Your task to perform on an android device: toggle notification dots Image 0: 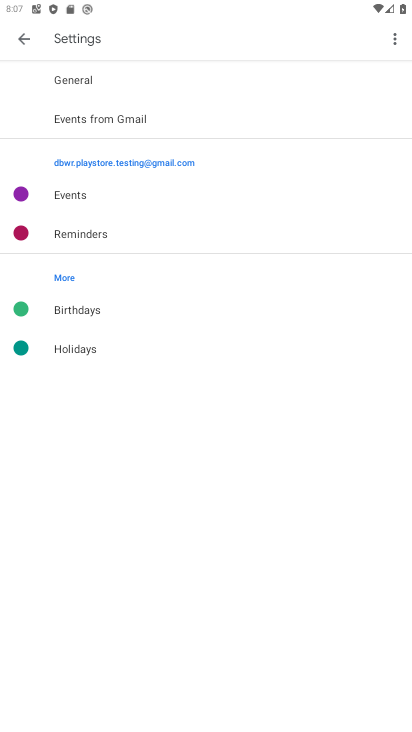
Step 0: press home button
Your task to perform on an android device: toggle notification dots Image 1: 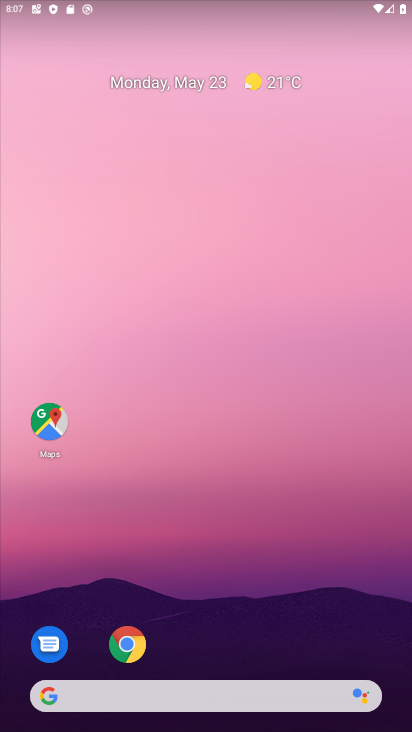
Step 1: drag from (203, 719) to (256, 0)
Your task to perform on an android device: toggle notification dots Image 2: 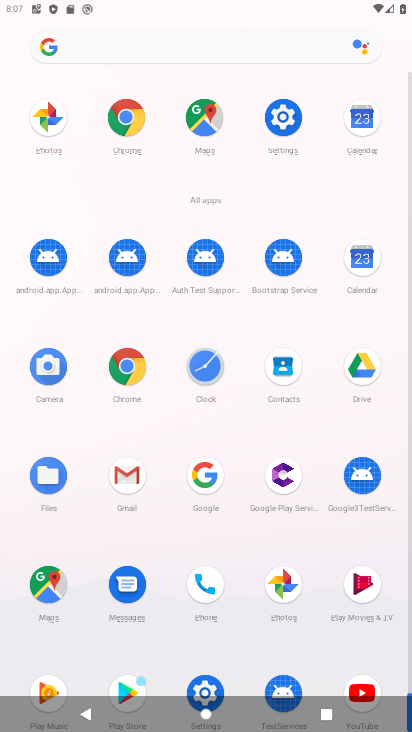
Step 2: click (290, 125)
Your task to perform on an android device: toggle notification dots Image 3: 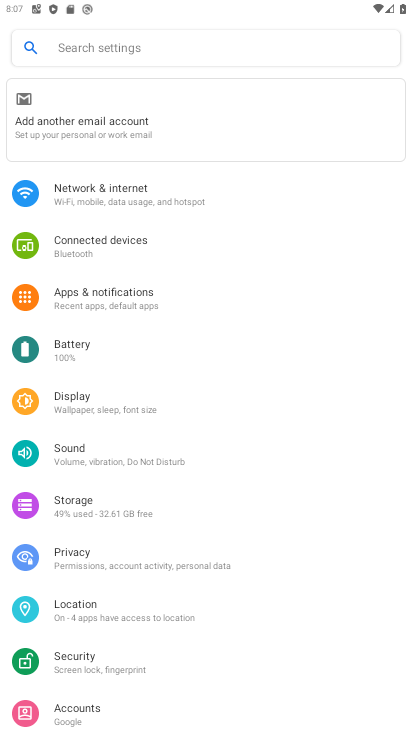
Step 3: click (172, 299)
Your task to perform on an android device: toggle notification dots Image 4: 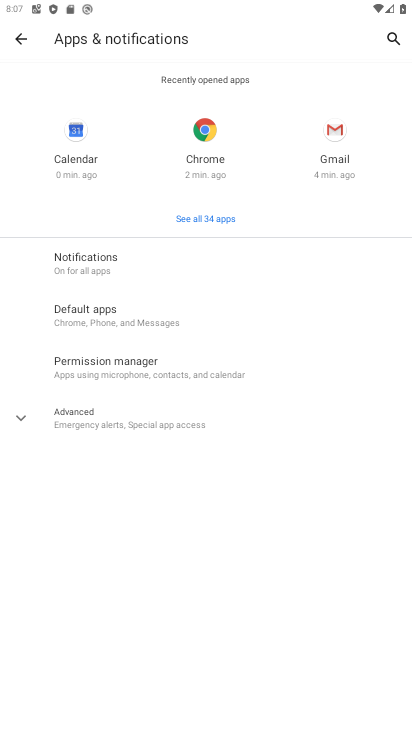
Step 4: click (202, 257)
Your task to perform on an android device: toggle notification dots Image 5: 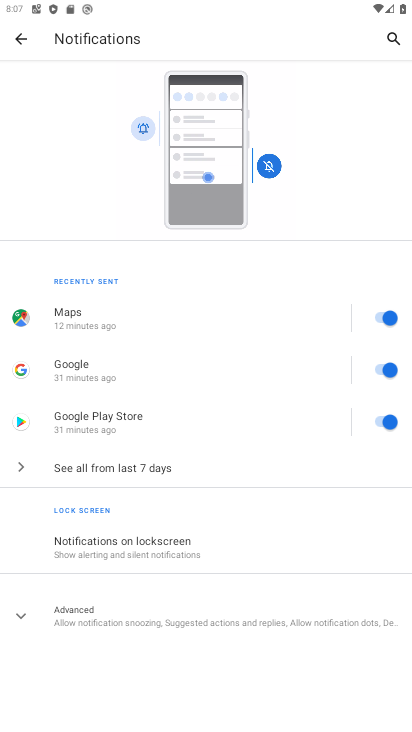
Step 5: click (124, 622)
Your task to perform on an android device: toggle notification dots Image 6: 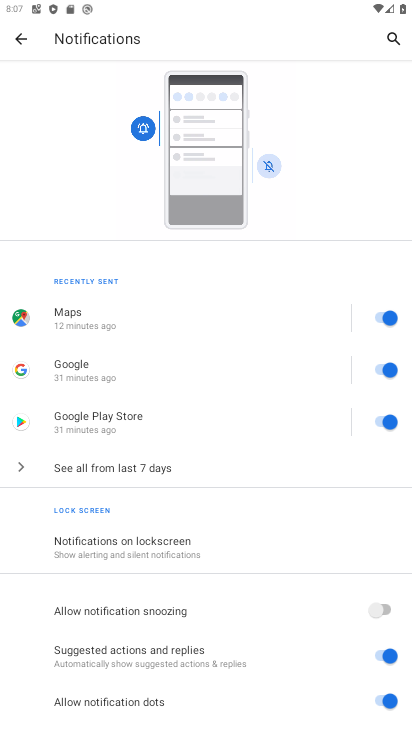
Step 6: drag from (170, 669) to (184, 239)
Your task to perform on an android device: toggle notification dots Image 7: 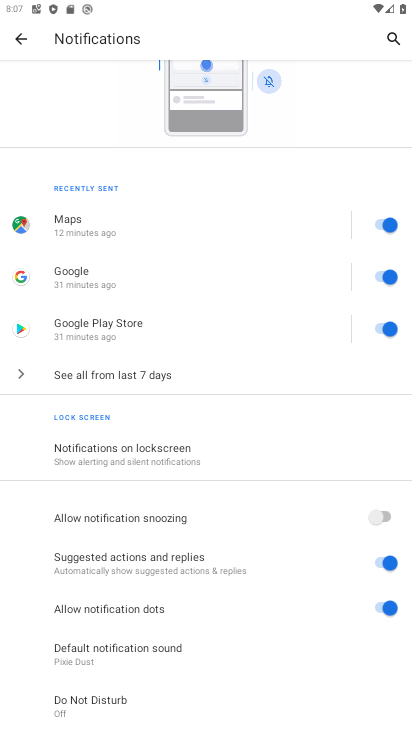
Step 7: click (387, 607)
Your task to perform on an android device: toggle notification dots Image 8: 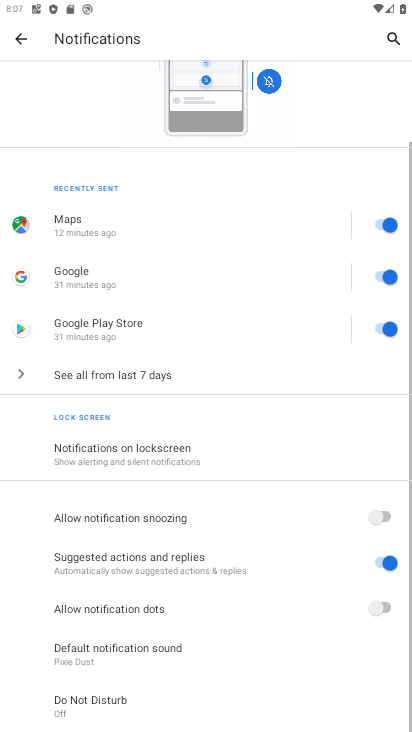
Step 8: task complete